Your task to perform on an android device: Go to ESPN.com Image 0: 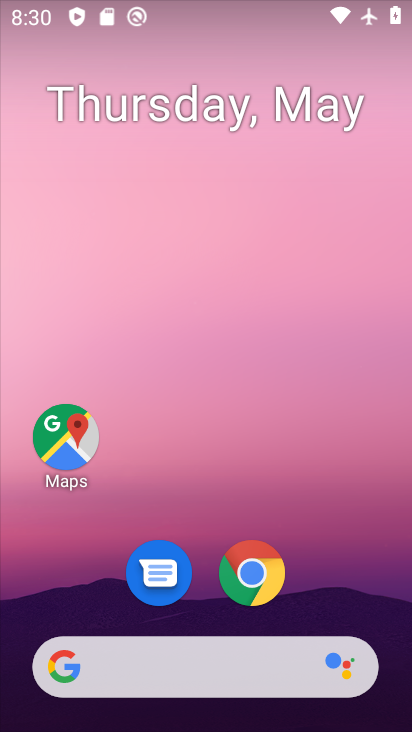
Step 0: click (267, 590)
Your task to perform on an android device: Go to ESPN.com Image 1: 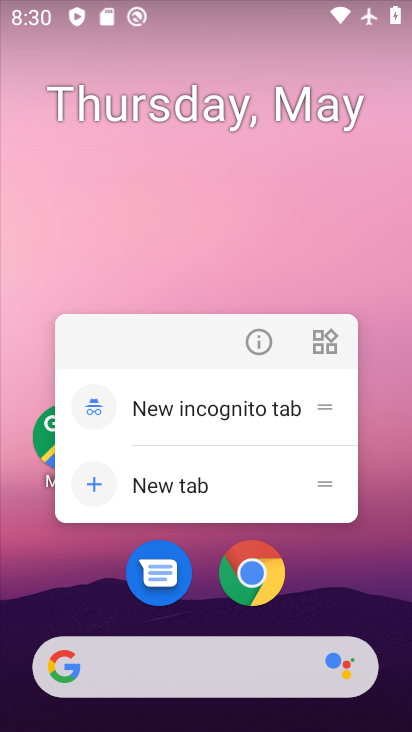
Step 1: click (254, 587)
Your task to perform on an android device: Go to ESPN.com Image 2: 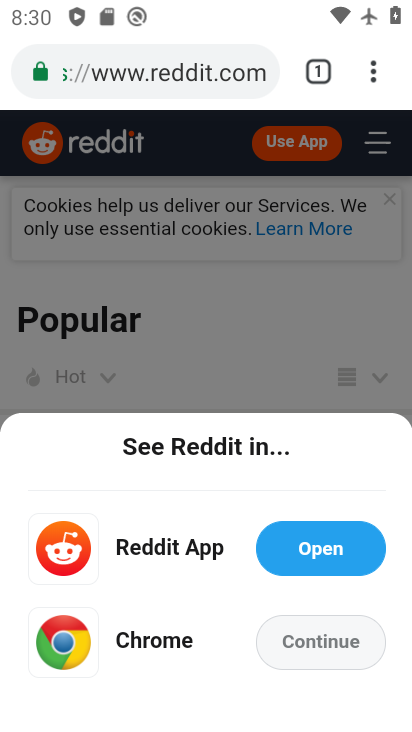
Step 2: click (163, 75)
Your task to perform on an android device: Go to ESPN.com Image 3: 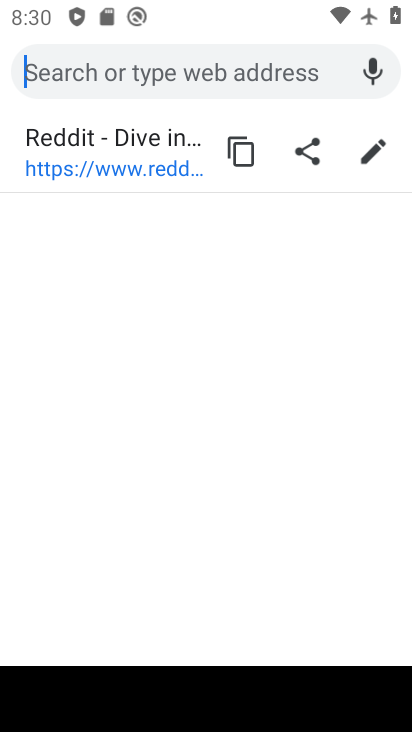
Step 3: type "ESPN.com"
Your task to perform on an android device: Go to ESPN.com Image 4: 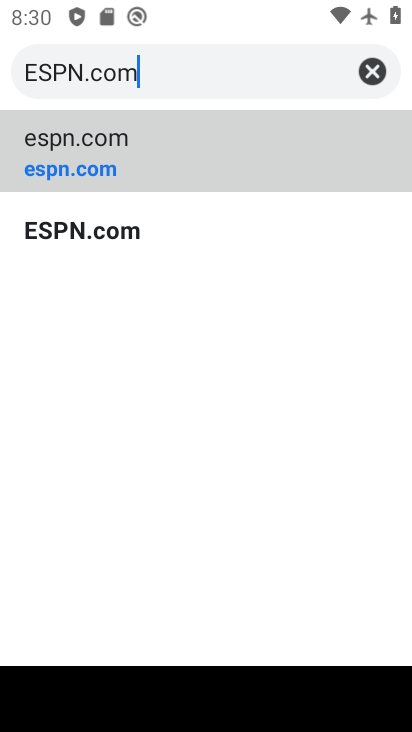
Step 4: click (100, 173)
Your task to perform on an android device: Go to ESPN.com Image 5: 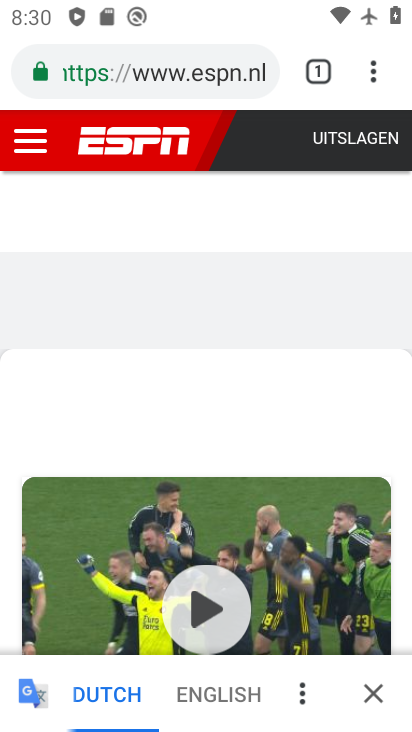
Step 5: task complete